Your task to perform on an android device: turn off sleep mode Image 0: 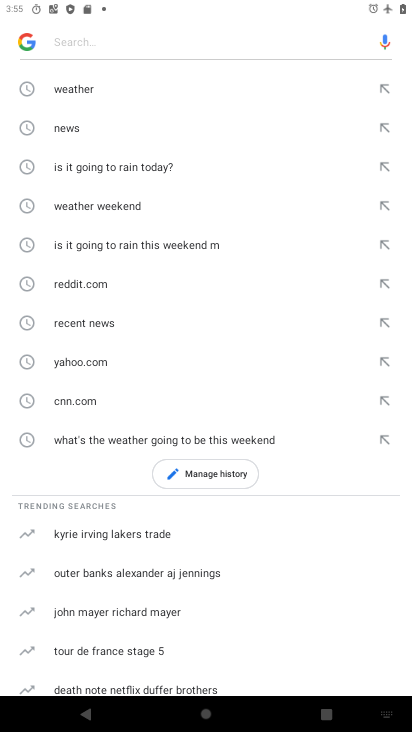
Step 0: press home button
Your task to perform on an android device: turn off sleep mode Image 1: 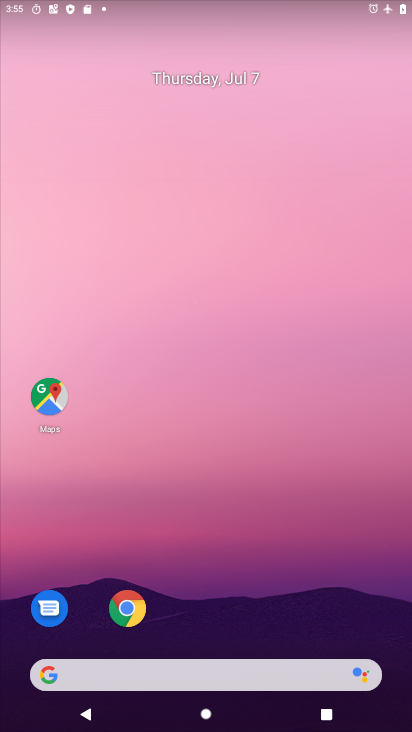
Step 1: drag from (227, 721) to (230, 172)
Your task to perform on an android device: turn off sleep mode Image 2: 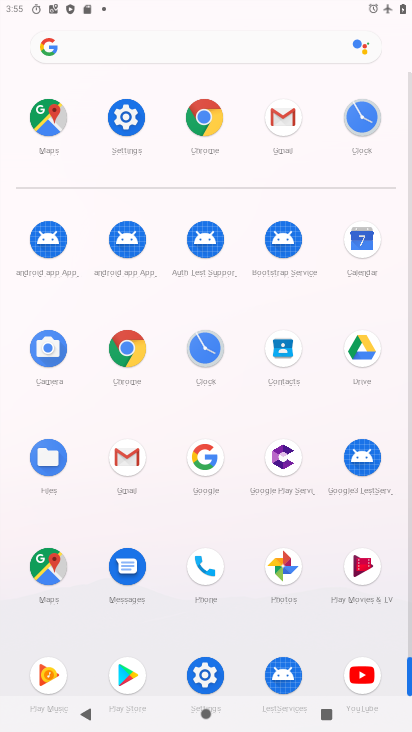
Step 2: click (124, 111)
Your task to perform on an android device: turn off sleep mode Image 3: 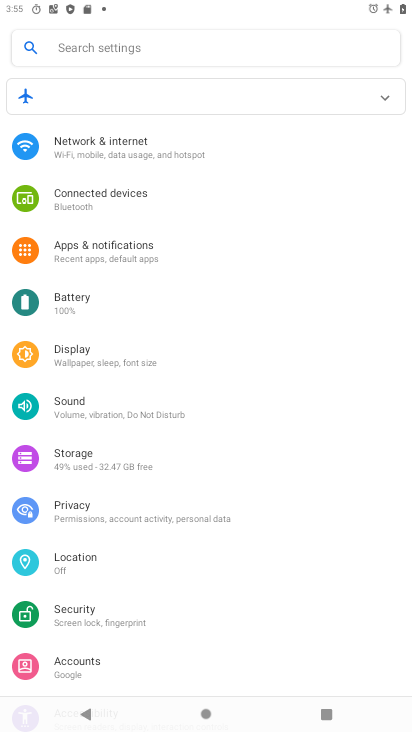
Step 3: click (83, 357)
Your task to perform on an android device: turn off sleep mode Image 4: 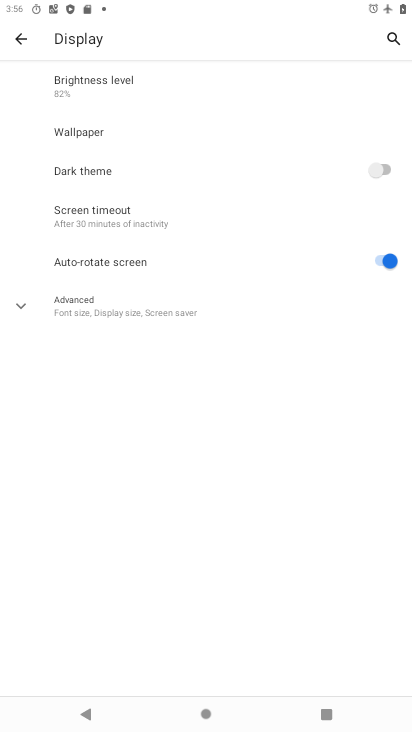
Step 4: task complete